Your task to perform on an android device: Open Wikipedia Image 0: 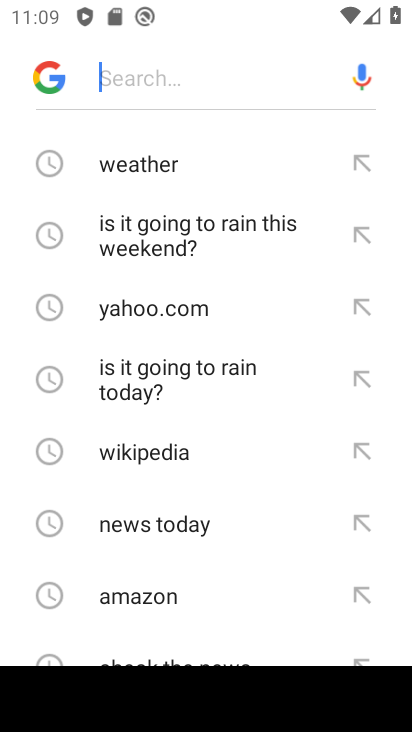
Step 0: press home button
Your task to perform on an android device: Open Wikipedia Image 1: 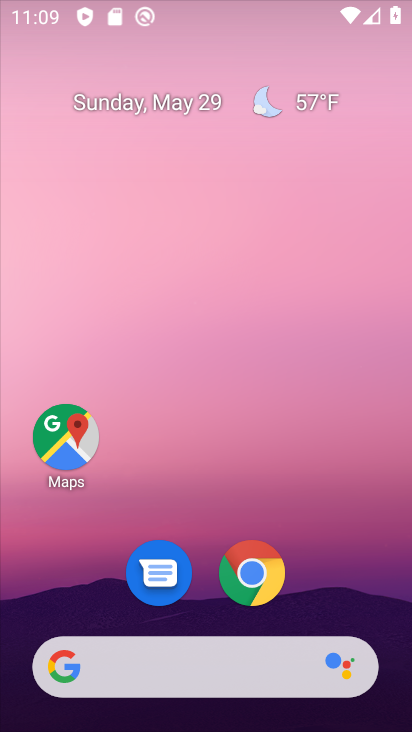
Step 1: drag from (99, 612) to (166, 86)
Your task to perform on an android device: Open Wikipedia Image 2: 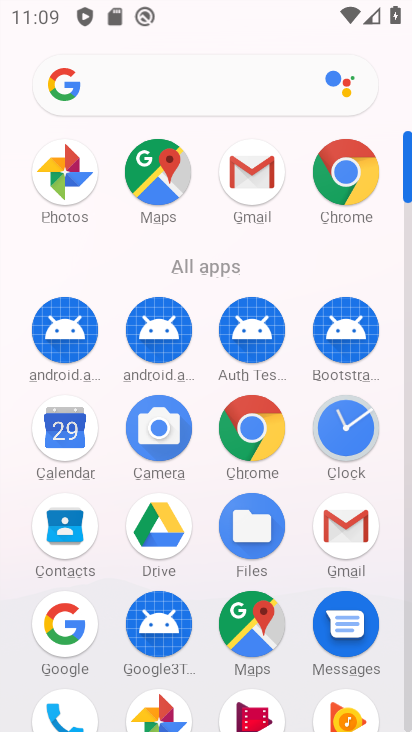
Step 2: click (264, 437)
Your task to perform on an android device: Open Wikipedia Image 3: 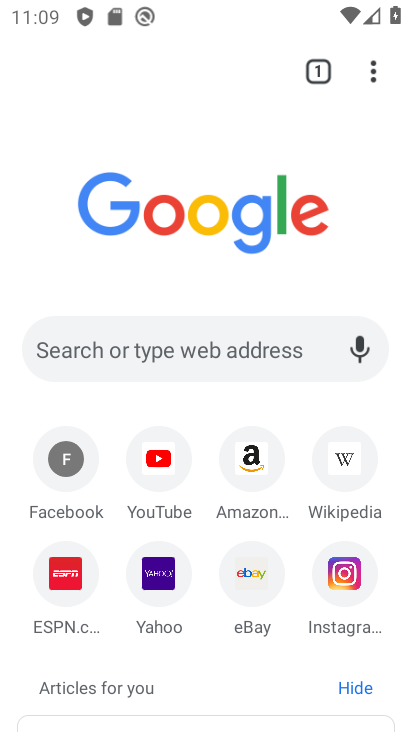
Step 3: click (340, 470)
Your task to perform on an android device: Open Wikipedia Image 4: 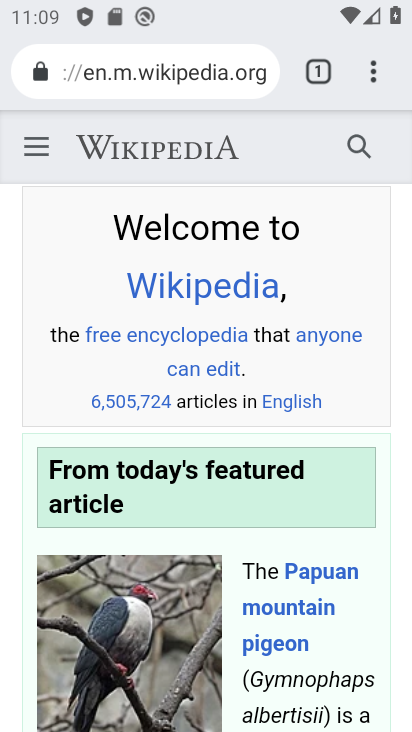
Step 4: task complete